Your task to perform on an android device: turn off picture-in-picture Image 0: 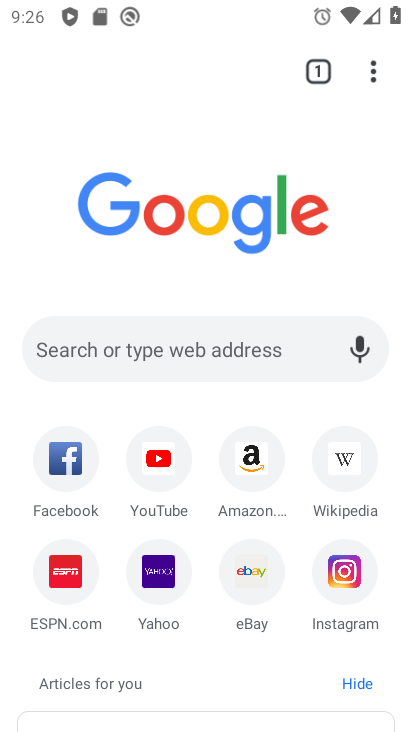
Step 0: press back button
Your task to perform on an android device: turn off picture-in-picture Image 1: 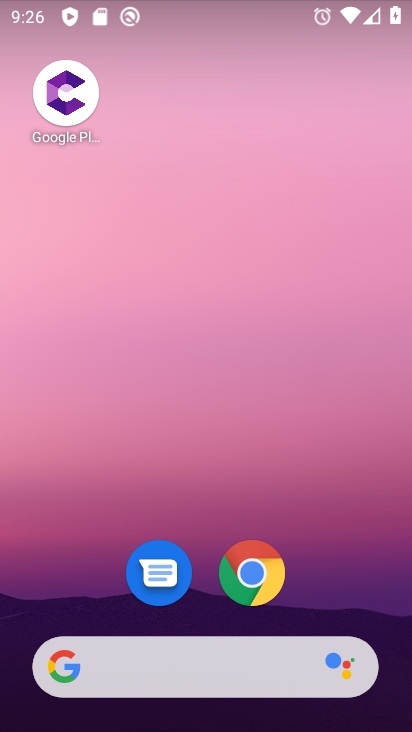
Step 1: click (250, 575)
Your task to perform on an android device: turn off picture-in-picture Image 2: 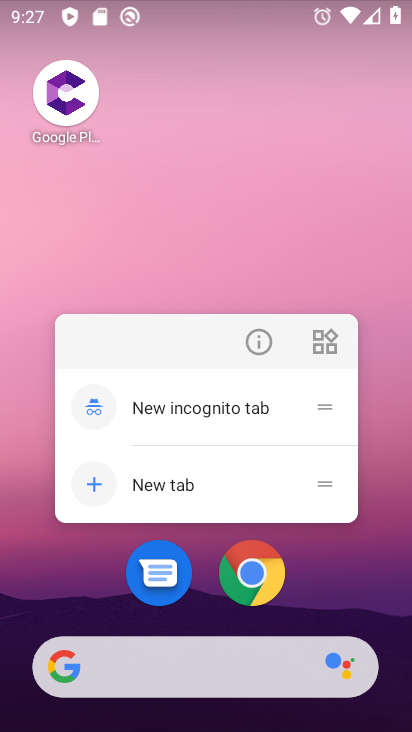
Step 2: click (252, 346)
Your task to perform on an android device: turn off picture-in-picture Image 3: 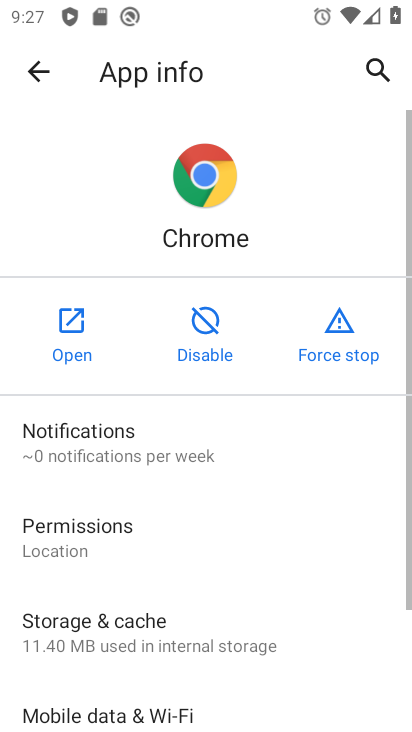
Step 3: drag from (201, 582) to (265, 397)
Your task to perform on an android device: turn off picture-in-picture Image 4: 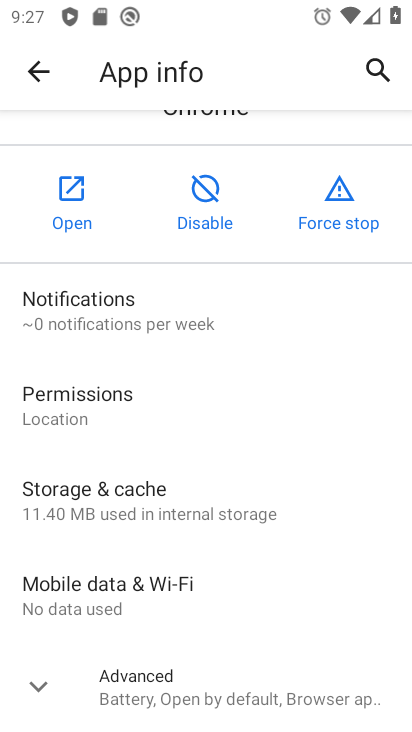
Step 4: click (203, 697)
Your task to perform on an android device: turn off picture-in-picture Image 5: 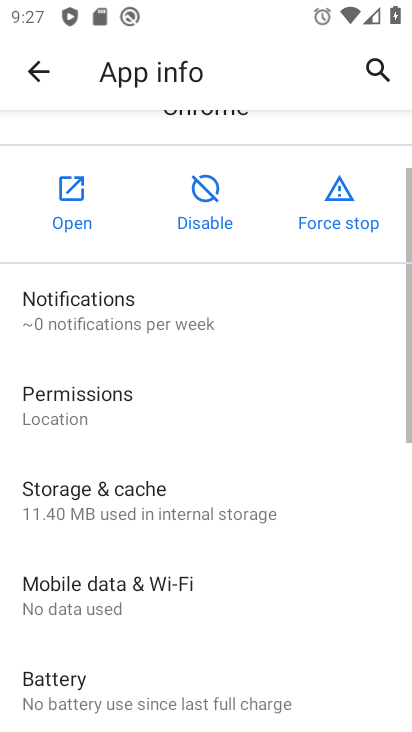
Step 5: drag from (203, 678) to (221, 501)
Your task to perform on an android device: turn off picture-in-picture Image 6: 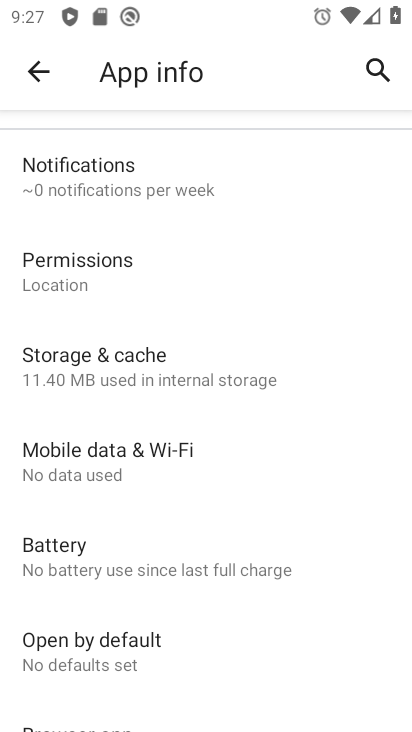
Step 6: drag from (171, 656) to (278, 500)
Your task to perform on an android device: turn off picture-in-picture Image 7: 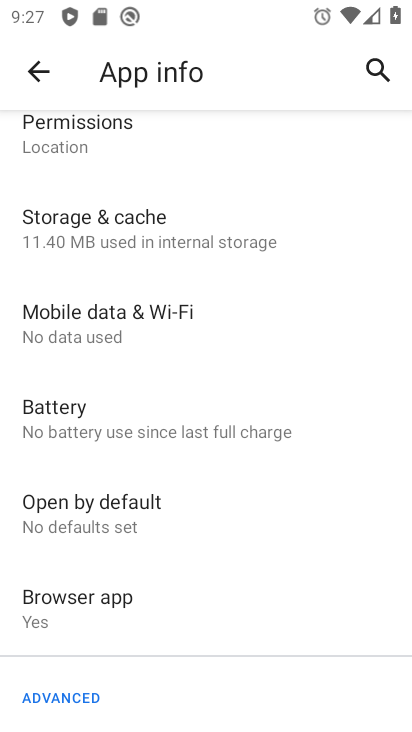
Step 7: drag from (175, 621) to (236, 489)
Your task to perform on an android device: turn off picture-in-picture Image 8: 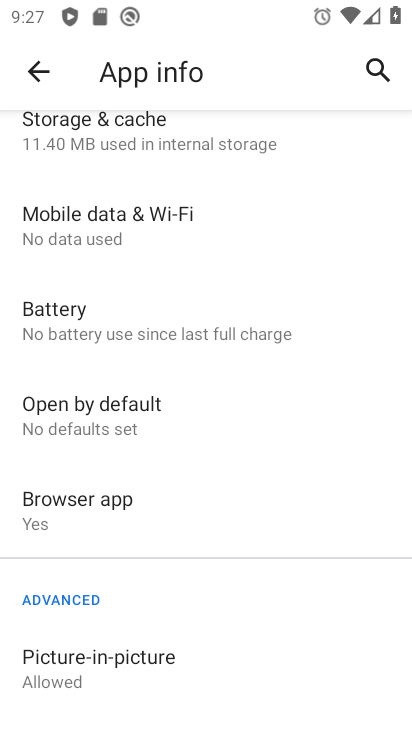
Step 8: click (129, 660)
Your task to perform on an android device: turn off picture-in-picture Image 9: 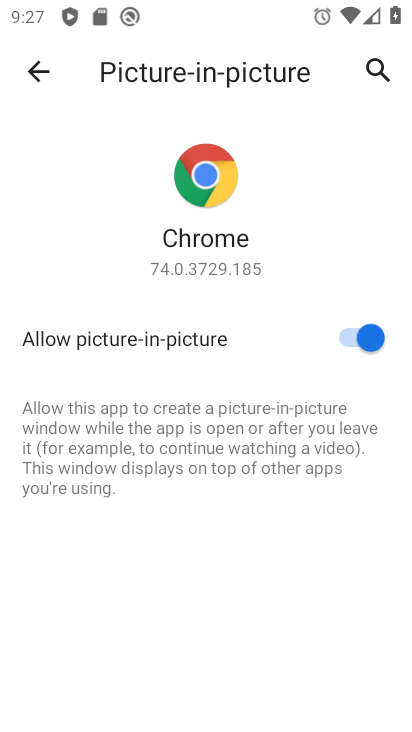
Step 9: click (362, 341)
Your task to perform on an android device: turn off picture-in-picture Image 10: 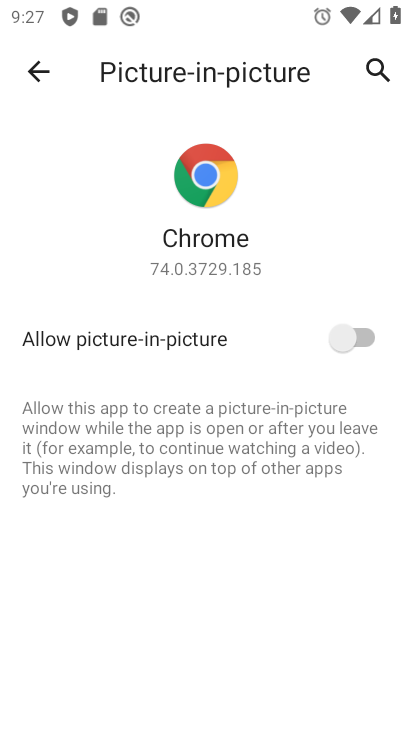
Step 10: task complete